Your task to perform on an android device: Go to Google Image 0: 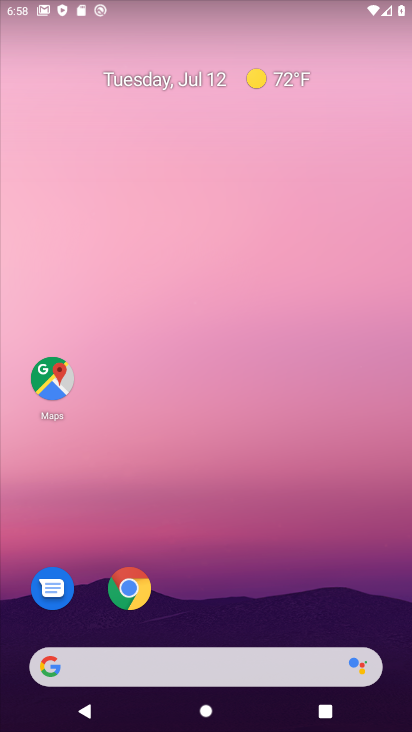
Step 0: drag from (289, 543) to (279, 222)
Your task to perform on an android device: Go to Google Image 1: 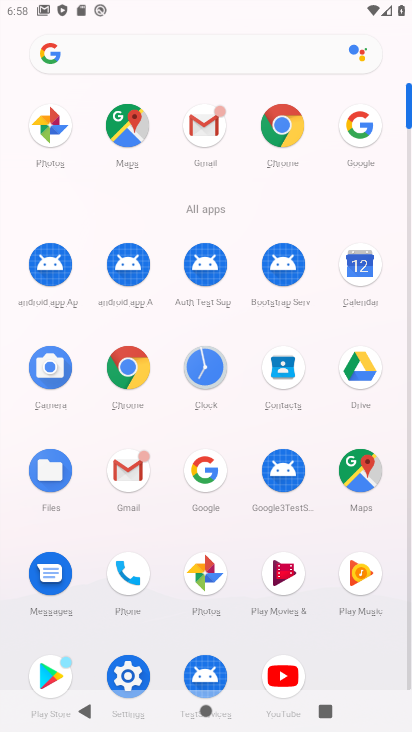
Step 1: click (201, 465)
Your task to perform on an android device: Go to Google Image 2: 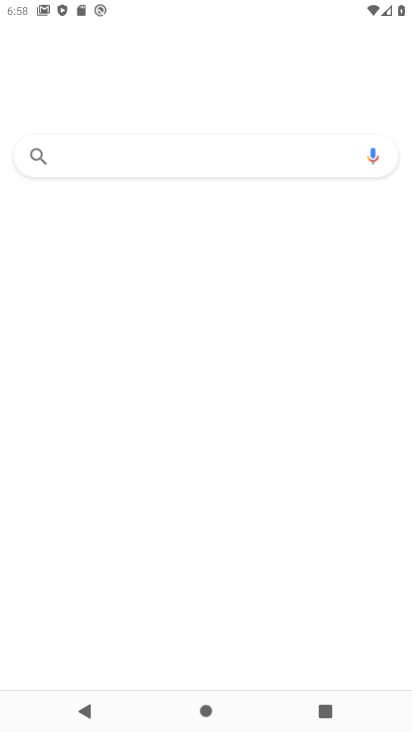
Step 2: click (217, 461)
Your task to perform on an android device: Go to Google Image 3: 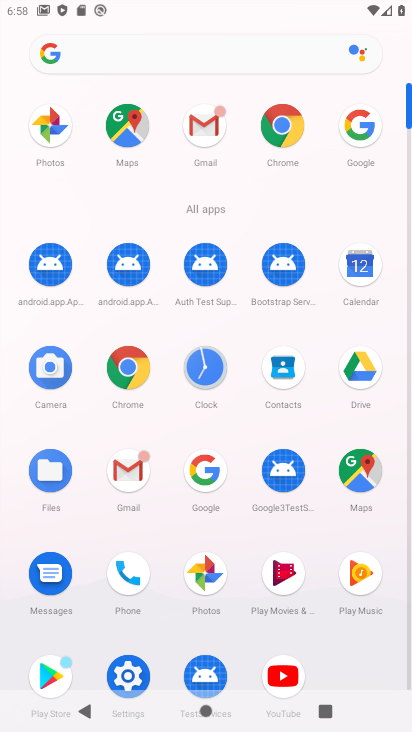
Step 3: click (205, 468)
Your task to perform on an android device: Go to Google Image 4: 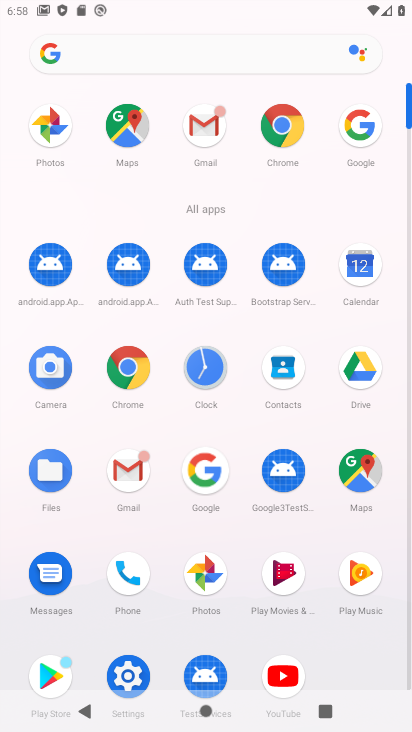
Step 4: click (215, 480)
Your task to perform on an android device: Go to Google Image 5: 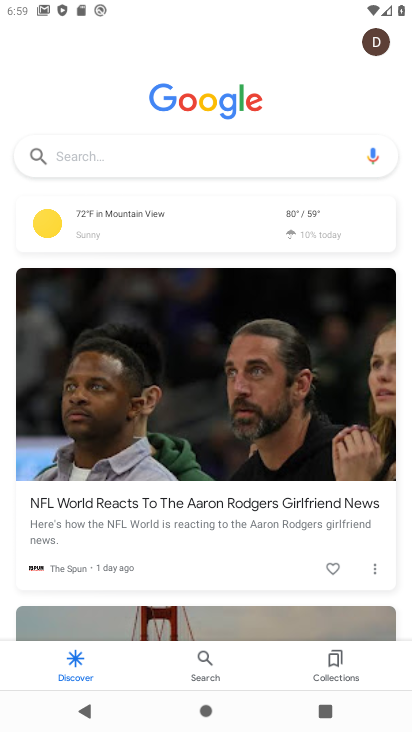
Step 5: task complete